Your task to perform on an android device: change the clock display to digital Image 0: 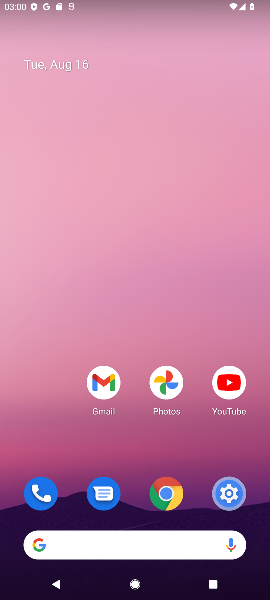
Step 0: drag from (48, 440) to (58, 54)
Your task to perform on an android device: change the clock display to digital Image 1: 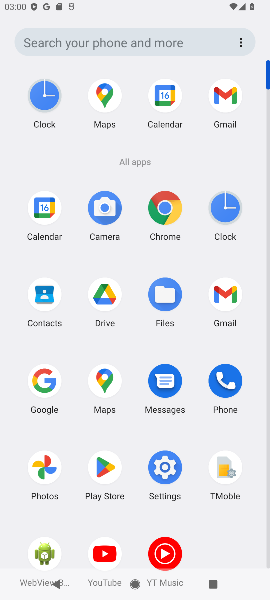
Step 1: click (222, 218)
Your task to perform on an android device: change the clock display to digital Image 2: 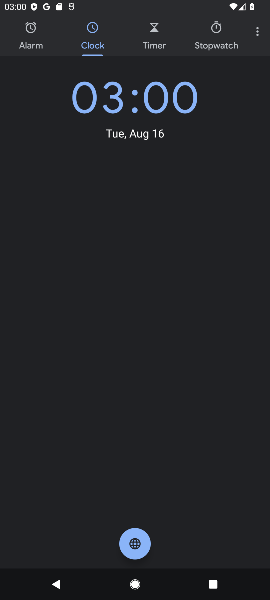
Step 2: click (256, 34)
Your task to perform on an android device: change the clock display to digital Image 3: 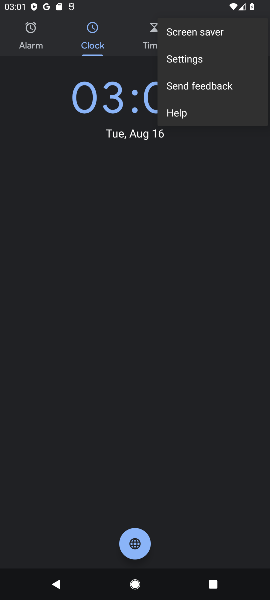
Step 3: click (206, 63)
Your task to perform on an android device: change the clock display to digital Image 4: 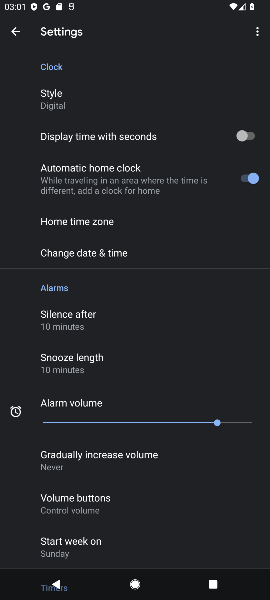
Step 4: task complete